Your task to perform on an android device: snooze an email in the gmail app Image 0: 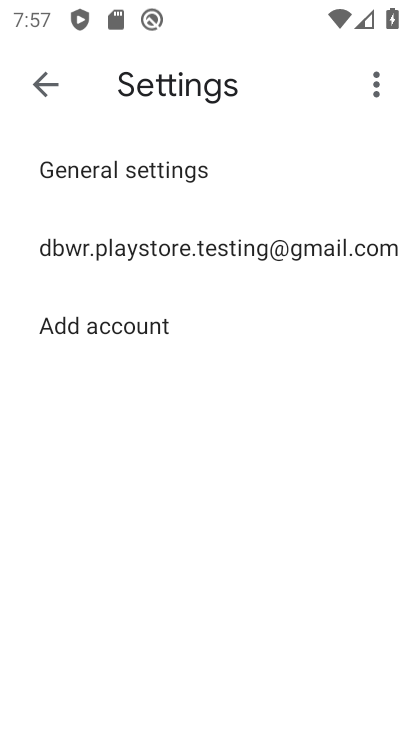
Step 0: click (38, 88)
Your task to perform on an android device: snooze an email in the gmail app Image 1: 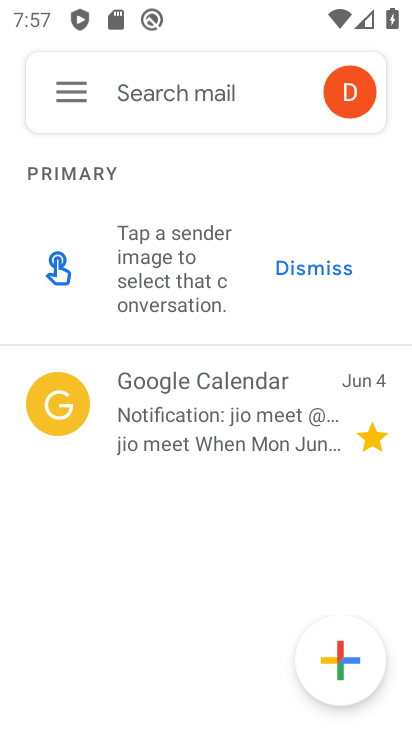
Step 1: click (67, 95)
Your task to perform on an android device: snooze an email in the gmail app Image 2: 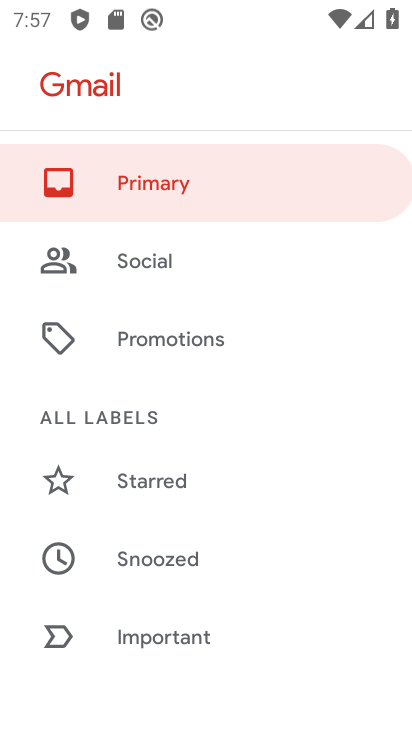
Step 2: click (159, 558)
Your task to perform on an android device: snooze an email in the gmail app Image 3: 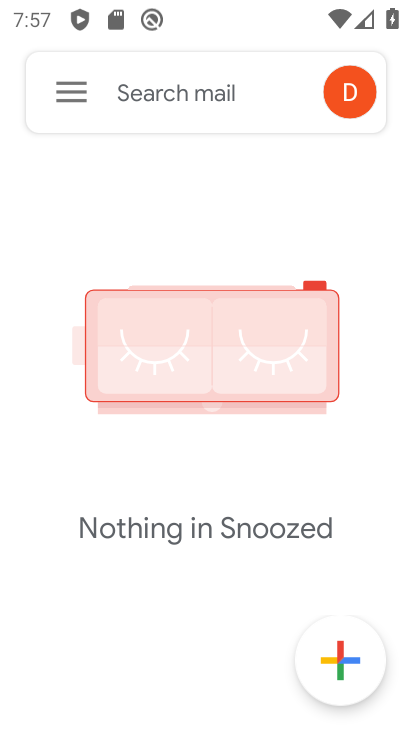
Step 3: click (79, 85)
Your task to perform on an android device: snooze an email in the gmail app Image 4: 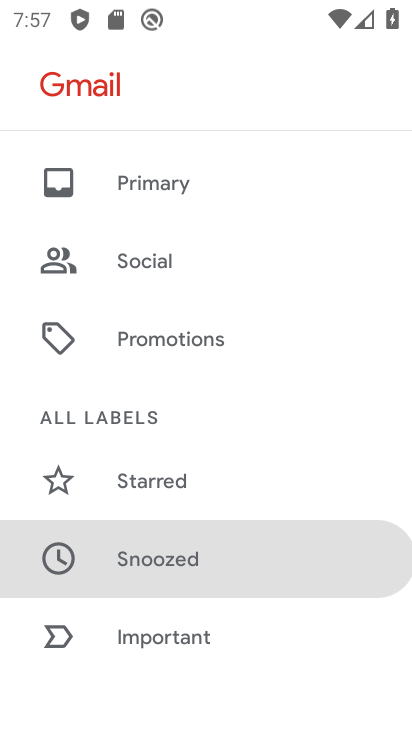
Step 4: click (131, 181)
Your task to perform on an android device: snooze an email in the gmail app Image 5: 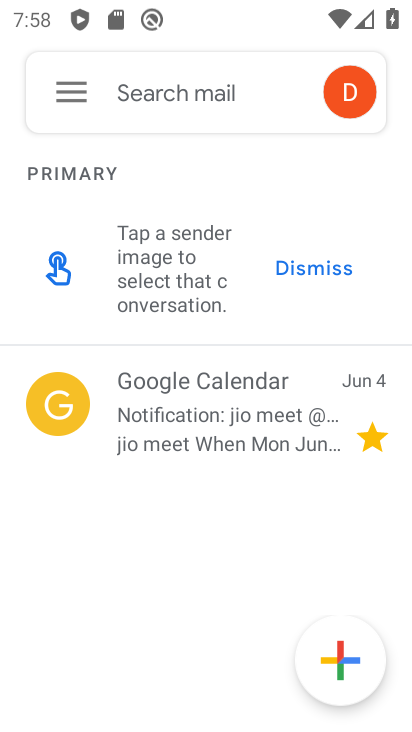
Step 5: click (256, 390)
Your task to perform on an android device: snooze an email in the gmail app Image 6: 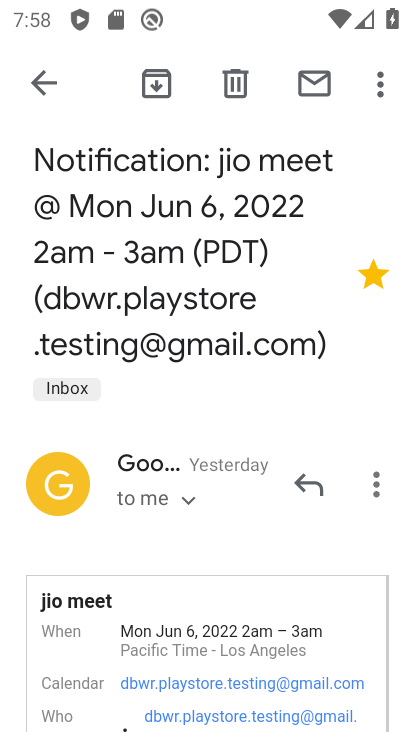
Step 6: click (379, 78)
Your task to perform on an android device: snooze an email in the gmail app Image 7: 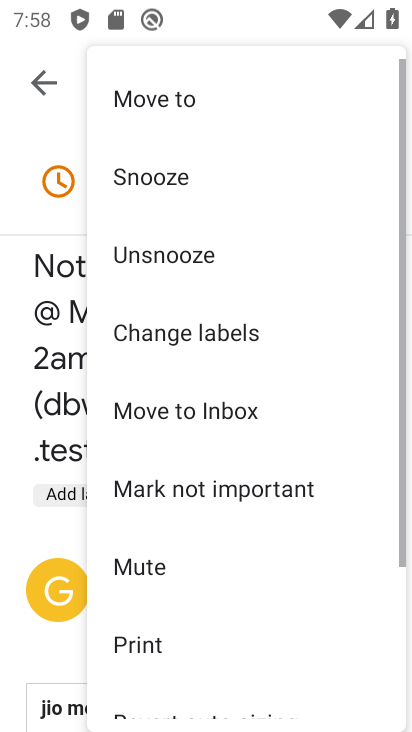
Step 7: click (155, 171)
Your task to perform on an android device: snooze an email in the gmail app Image 8: 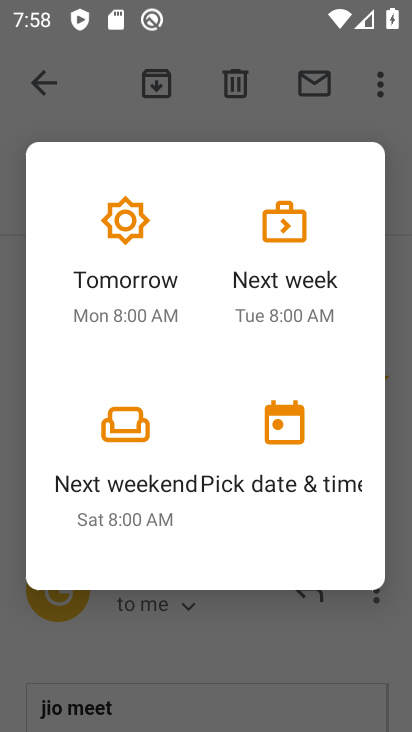
Step 8: click (136, 264)
Your task to perform on an android device: snooze an email in the gmail app Image 9: 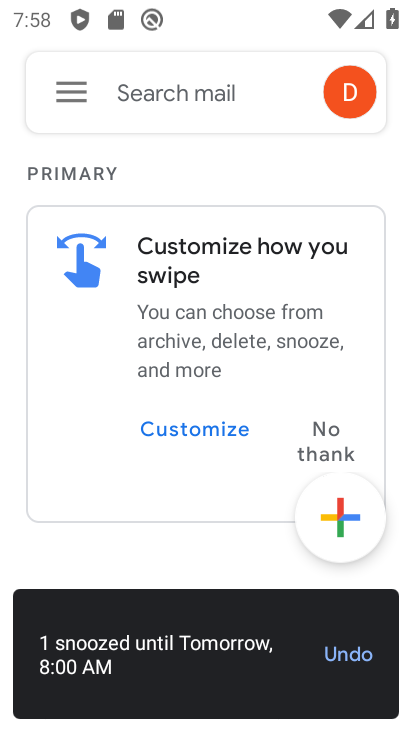
Step 9: task complete